Your task to perform on an android device: empty trash in google photos Image 0: 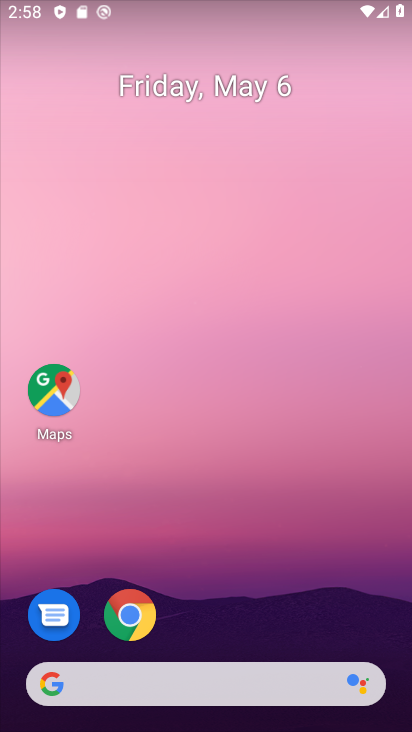
Step 0: drag from (267, 613) to (263, 291)
Your task to perform on an android device: empty trash in google photos Image 1: 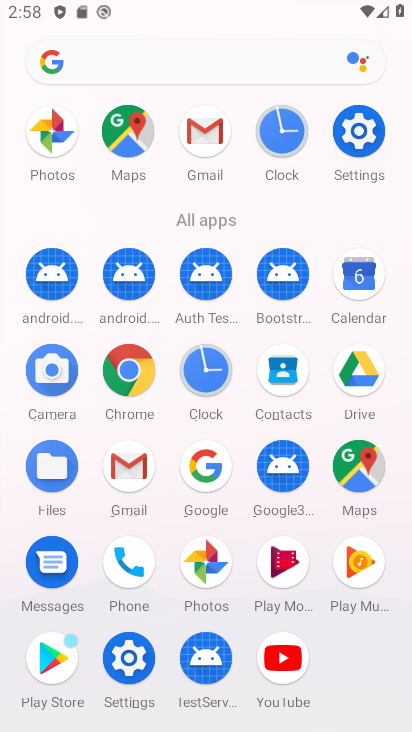
Step 1: click (197, 563)
Your task to perform on an android device: empty trash in google photos Image 2: 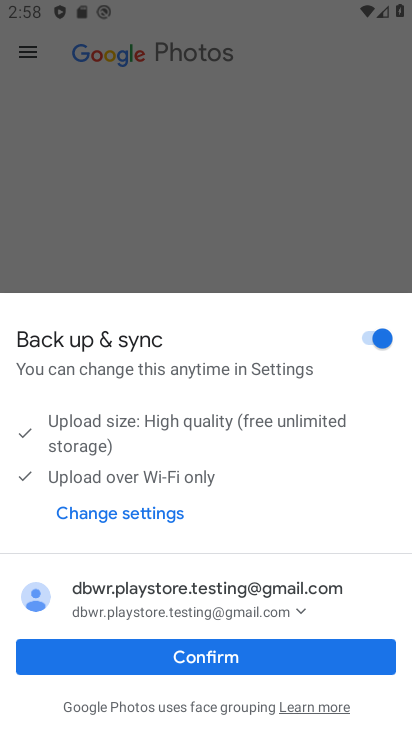
Step 2: click (215, 649)
Your task to perform on an android device: empty trash in google photos Image 3: 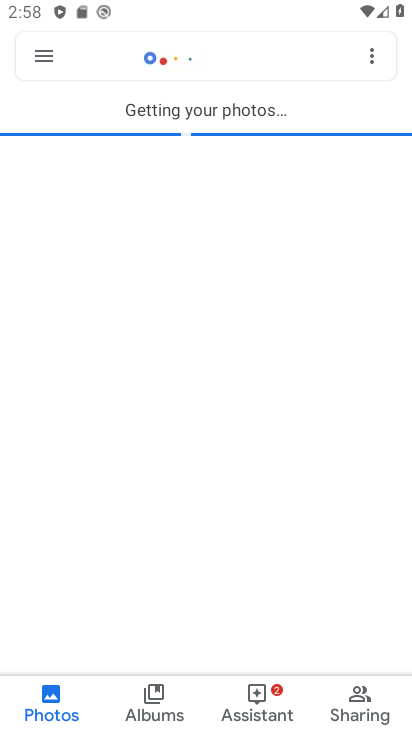
Step 3: click (41, 57)
Your task to perform on an android device: empty trash in google photos Image 4: 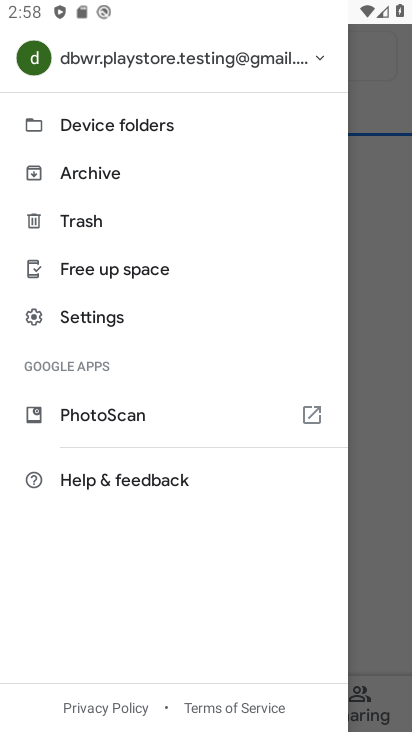
Step 4: click (95, 212)
Your task to perform on an android device: empty trash in google photos Image 5: 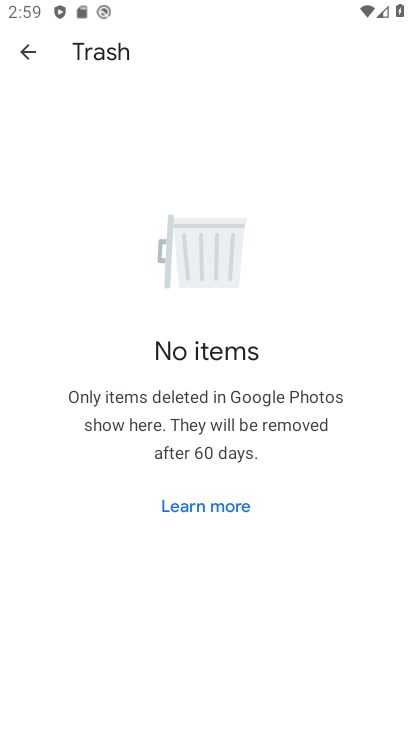
Step 5: task complete